Your task to perform on an android device: Open the Play Movies app and select the watchlist tab. Image 0: 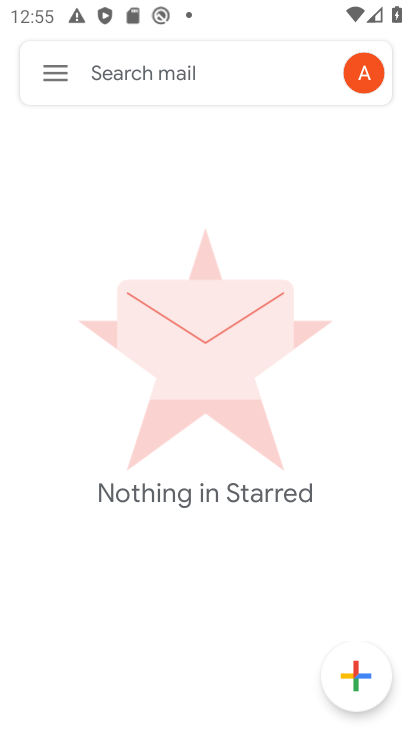
Step 0: press home button
Your task to perform on an android device: Open the Play Movies app and select the watchlist tab. Image 1: 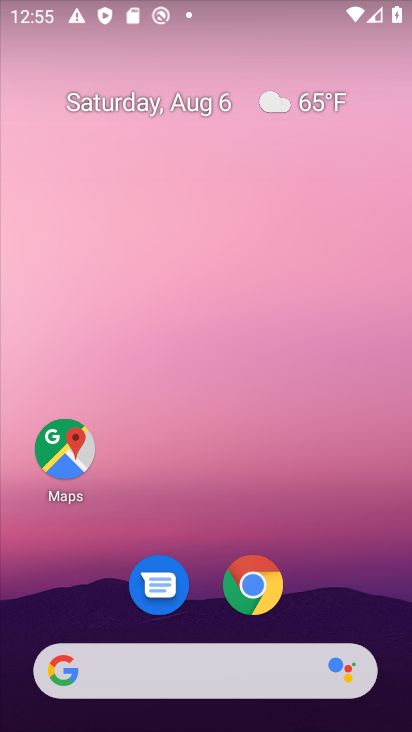
Step 1: drag from (211, 467) to (250, 0)
Your task to perform on an android device: Open the Play Movies app and select the watchlist tab. Image 2: 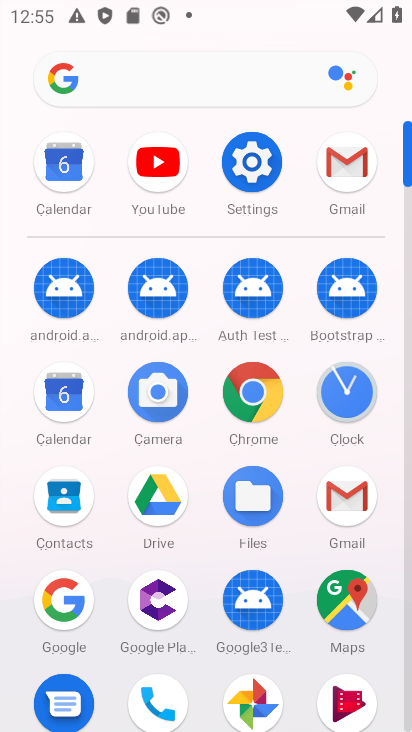
Step 2: click (345, 702)
Your task to perform on an android device: Open the Play Movies app and select the watchlist tab. Image 3: 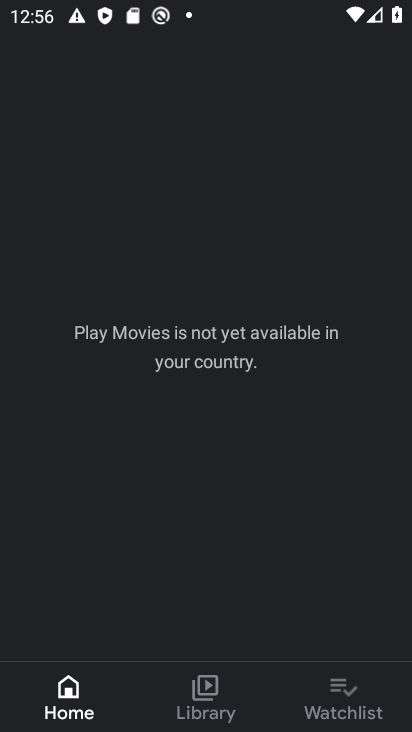
Step 3: click (356, 688)
Your task to perform on an android device: Open the Play Movies app and select the watchlist tab. Image 4: 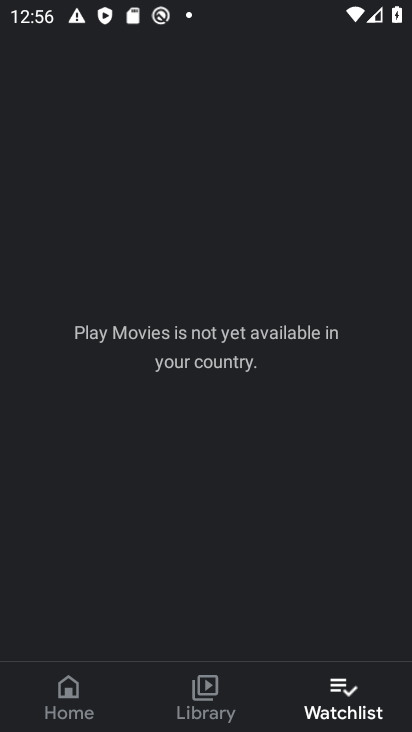
Step 4: task complete